Your task to perform on an android device: Open the calendar app, open the side menu, and click the "Day" option Image 0: 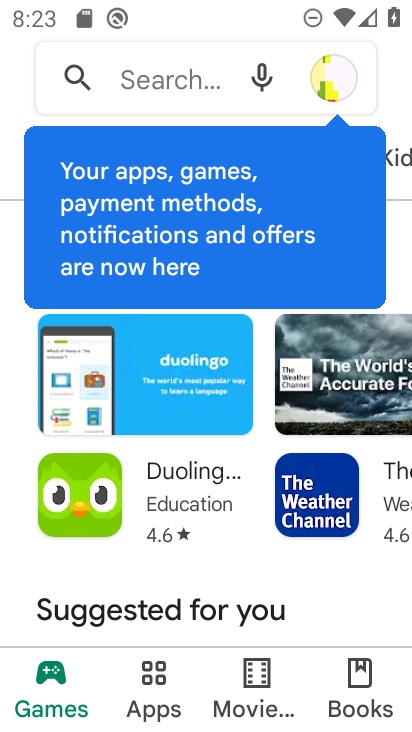
Step 0: press home button
Your task to perform on an android device: Open the calendar app, open the side menu, and click the "Day" option Image 1: 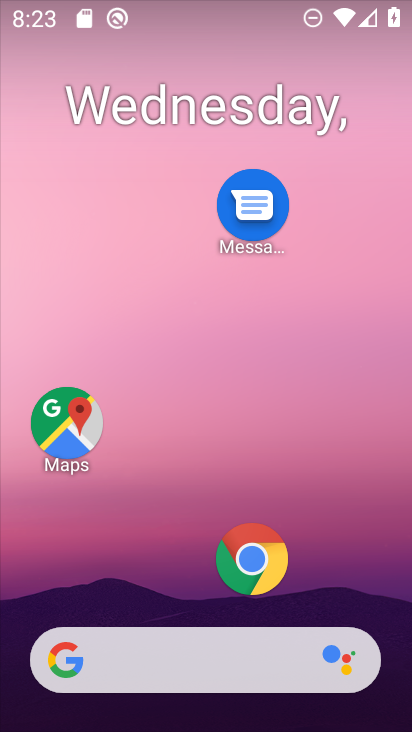
Step 1: drag from (242, 645) to (223, 367)
Your task to perform on an android device: Open the calendar app, open the side menu, and click the "Day" option Image 2: 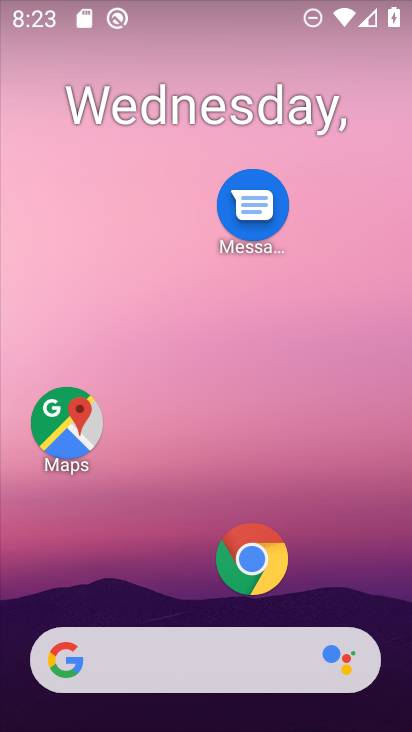
Step 2: drag from (191, 557) to (192, 244)
Your task to perform on an android device: Open the calendar app, open the side menu, and click the "Day" option Image 3: 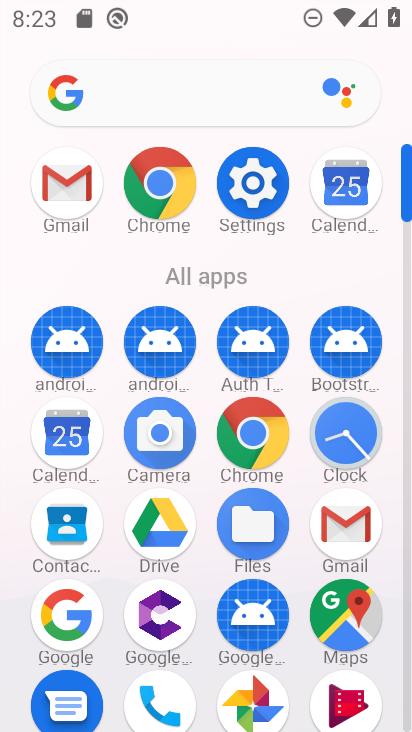
Step 3: drag from (123, 568) to (176, 331)
Your task to perform on an android device: Open the calendar app, open the side menu, and click the "Day" option Image 4: 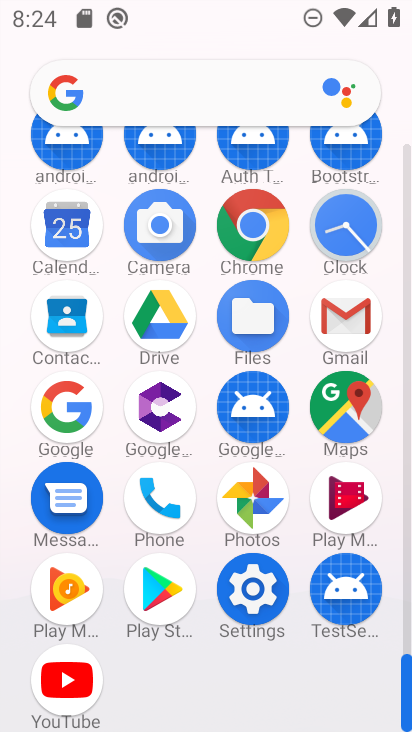
Step 4: click (49, 240)
Your task to perform on an android device: Open the calendar app, open the side menu, and click the "Day" option Image 5: 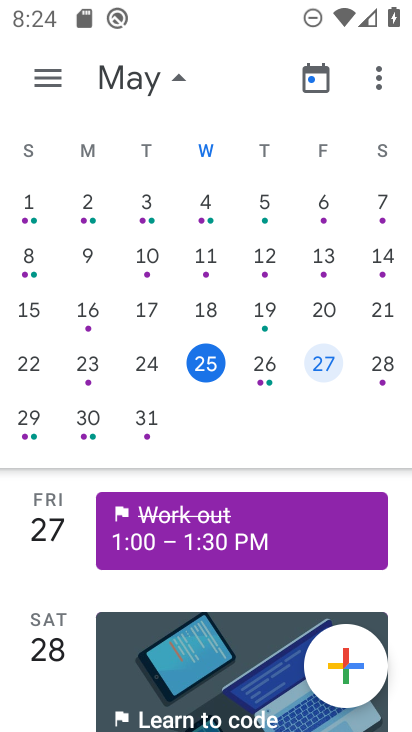
Step 5: click (43, 86)
Your task to perform on an android device: Open the calendar app, open the side menu, and click the "Day" option Image 6: 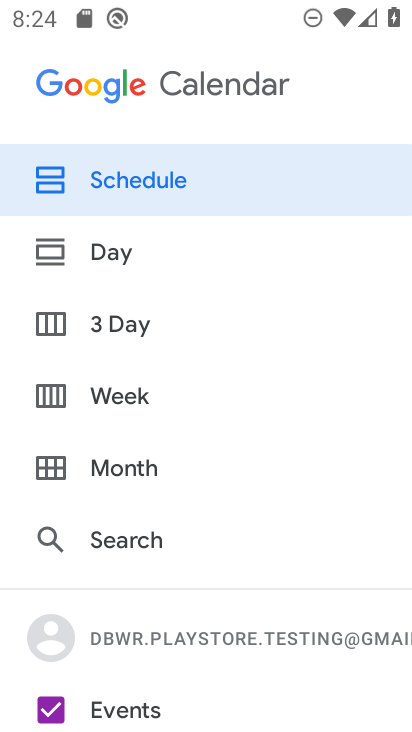
Step 6: click (106, 263)
Your task to perform on an android device: Open the calendar app, open the side menu, and click the "Day" option Image 7: 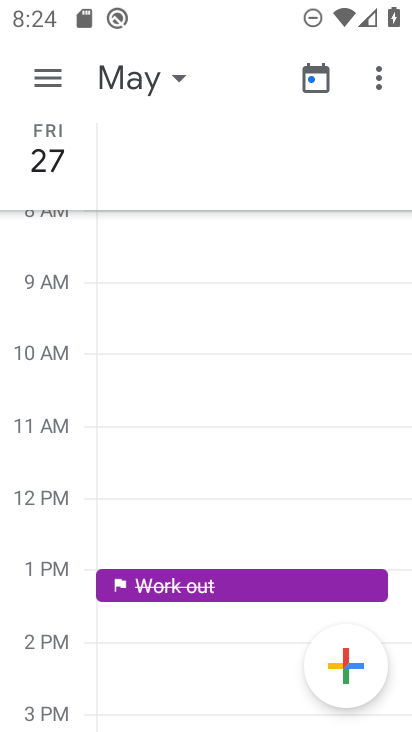
Step 7: task complete